Your task to perform on an android device: Open wifi settings Image 0: 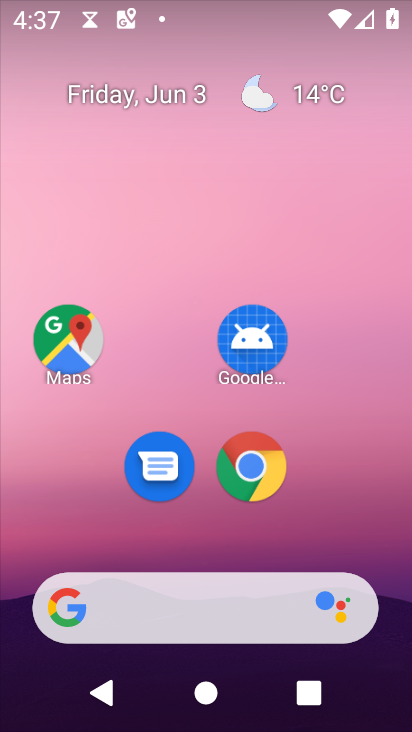
Step 0: drag from (338, 528) to (338, 77)
Your task to perform on an android device: Open wifi settings Image 1: 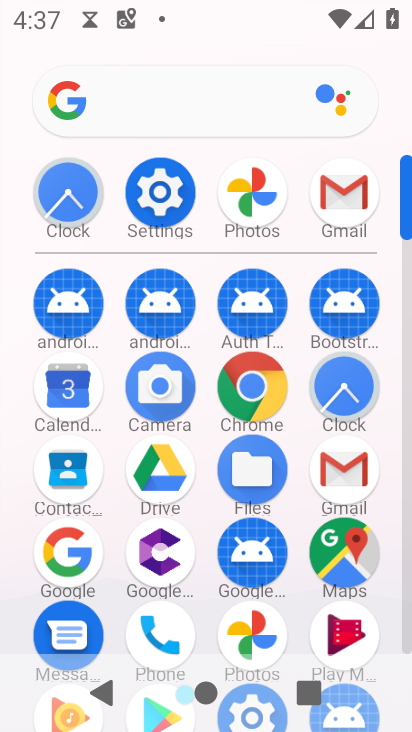
Step 1: click (167, 167)
Your task to perform on an android device: Open wifi settings Image 2: 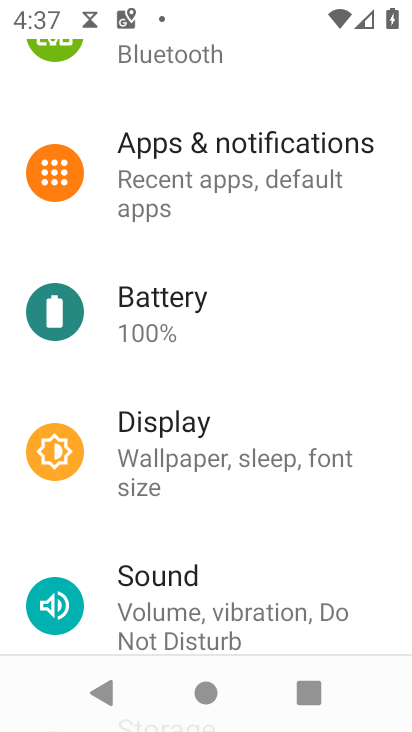
Step 2: drag from (253, 167) to (283, 585)
Your task to perform on an android device: Open wifi settings Image 3: 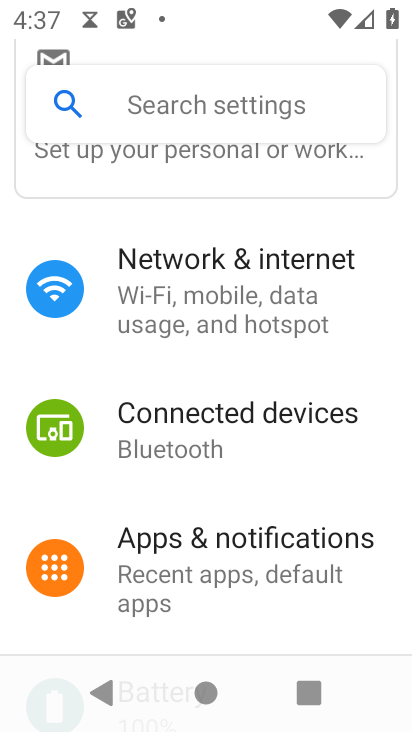
Step 3: click (281, 288)
Your task to perform on an android device: Open wifi settings Image 4: 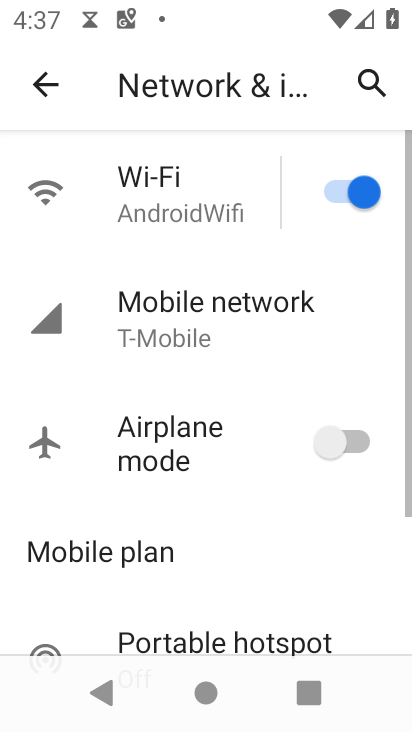
Step 4: click (108, 216)
Your task to perform on an android device: Open wifi settings Image 5: 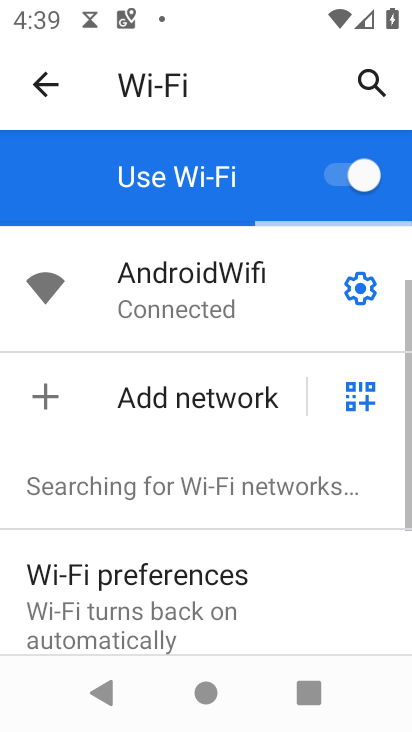
Step 5: task complete